Your task to perform on an android device: Go to Reddit.com Image 0: 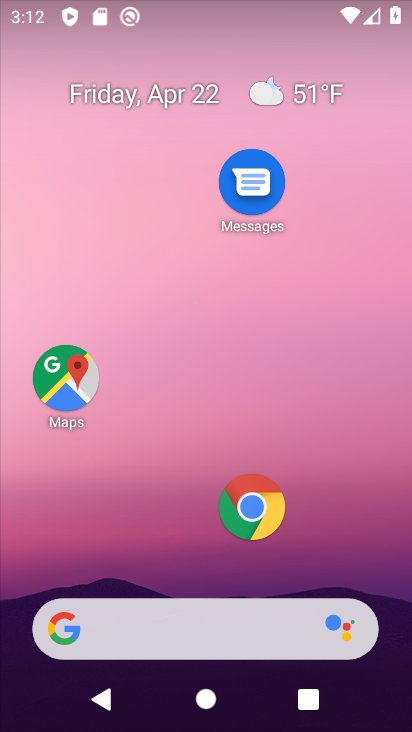
Step 0: press home button
Your task to perform on an android device: Go to Reddit.com Image 1: 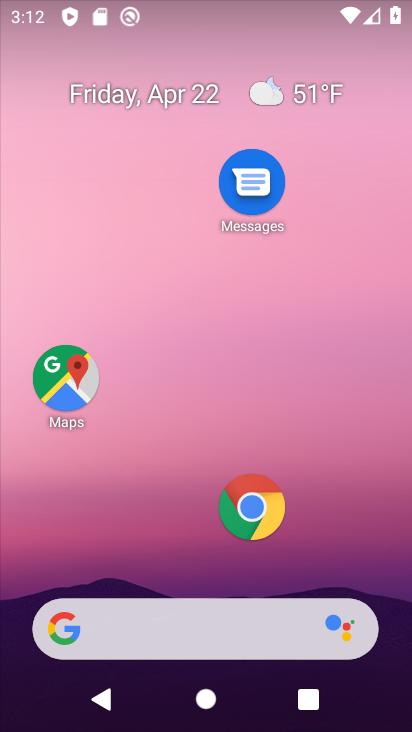
Step 1: drag from (171, 631) to (285, 45)
Your task to perform on an android device: Go to Reddit.com Image 2: 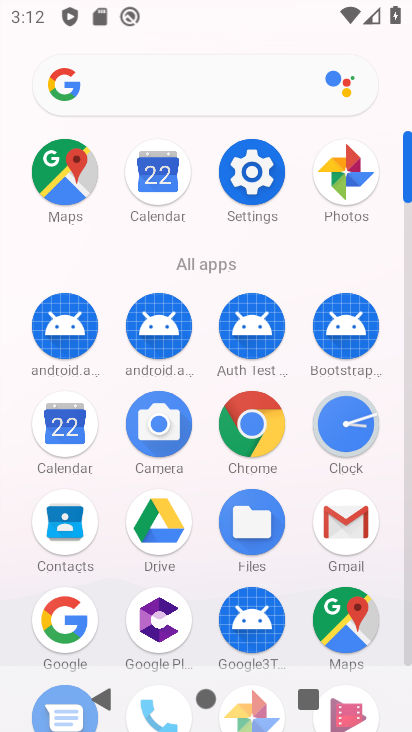
Step 2: click (256, 428)
Your task to perform on an android device: Go to Reddit.com Image 3: 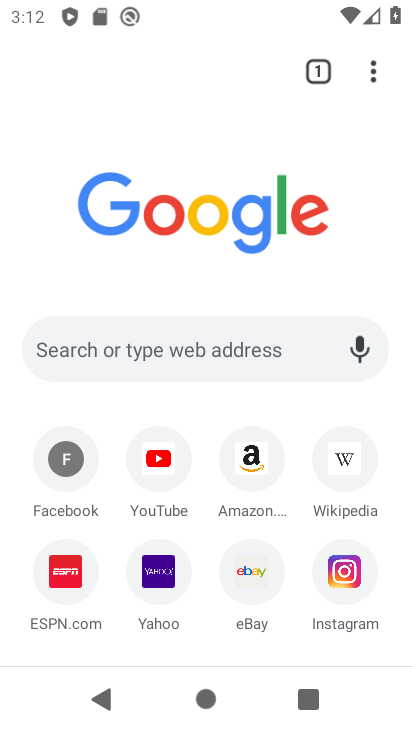
Step 3: click (162, 343)
Your task to perform on an android device: Go to Reddit.com Image 4: 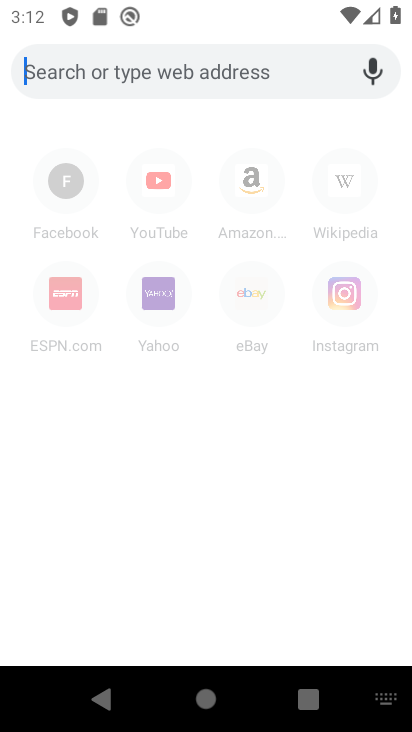
Step 4: type "reddit.com"
Your task to perform on an android device: Go to Reddit.com Image 5: 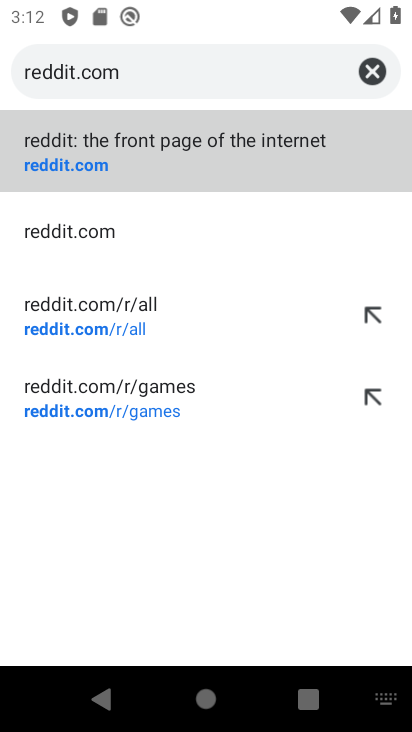
Step 5: click (105, 230)
Your task to perform on an android device: Go to Reddit.com Image 6: 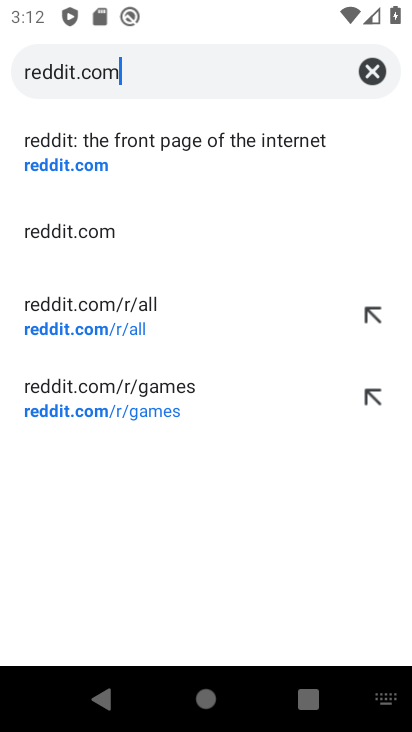
Step 6: click (83, 234)
Your task to perform on an android device: Go to Reddit.com Image 7: 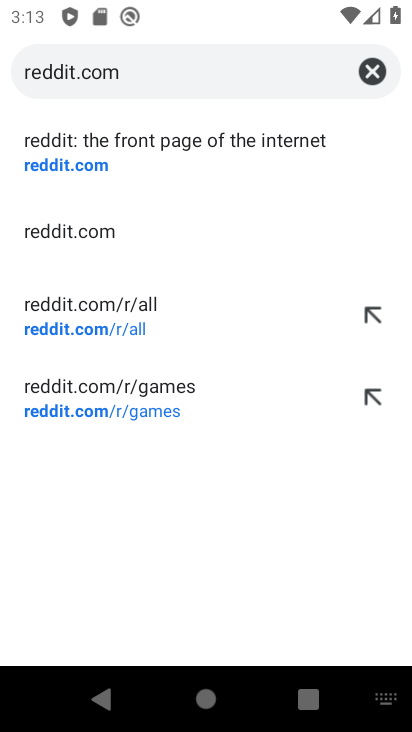
Step 7: click (78, 231)
Your task to perform on an android device: Go to Reddit.com Image 8: 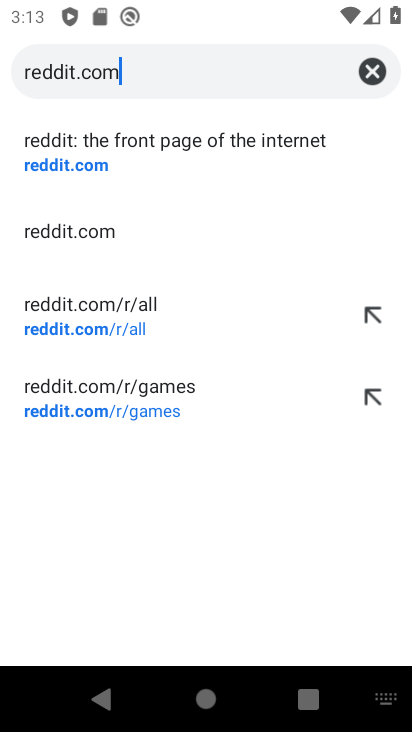
Step 8: click (107, 156)
Your task to perform on an android device: Go to Reddit.com Image 9: 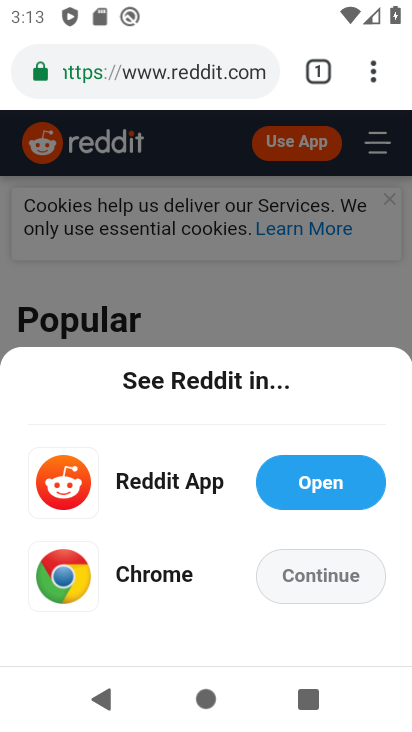
Step 9: task complete